Your task to perform on an android device: Open the Play Movies app and select the watchlist tab. Image 0: 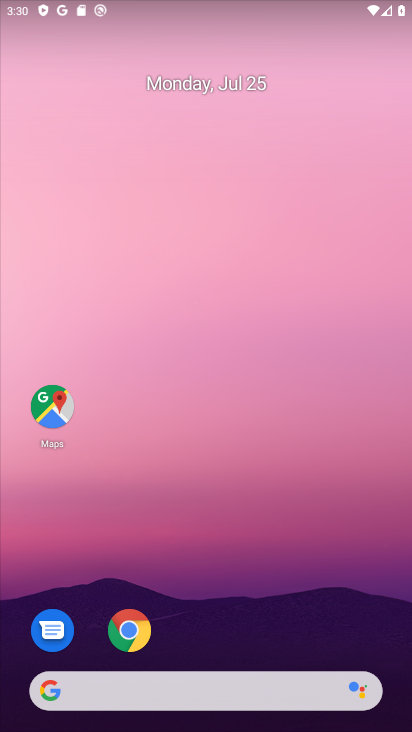
Step 0: drag from (259, 683) to (313, 1)
Your task to perform on an android device: Open the Play Movies app and select the watchlist tab. Image 1: 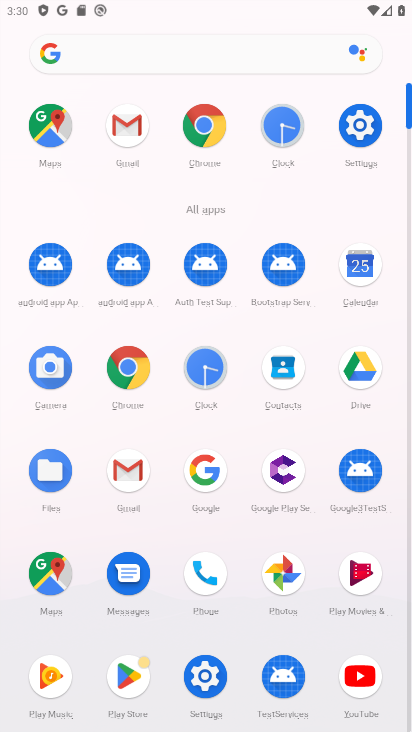
Step 1: click (361, 573)
Your task to perform on an android device: Open the Play Movies app and select the watchlist tab. Image 2: 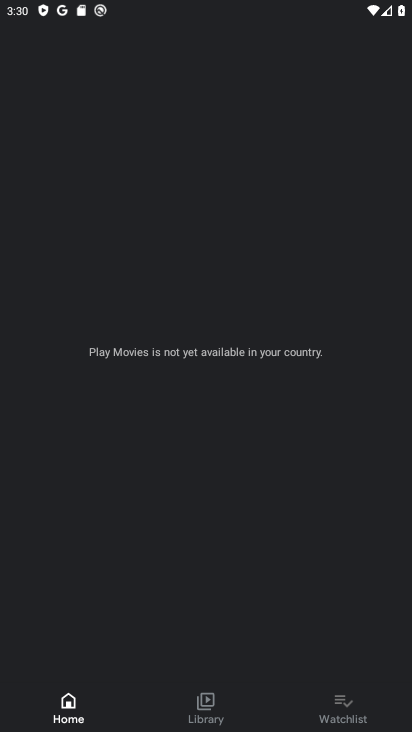
Step 2: click (345, 708)
Your task to perform on an android device: Open the Play Movies app and select the watchlist tab. Image 3: 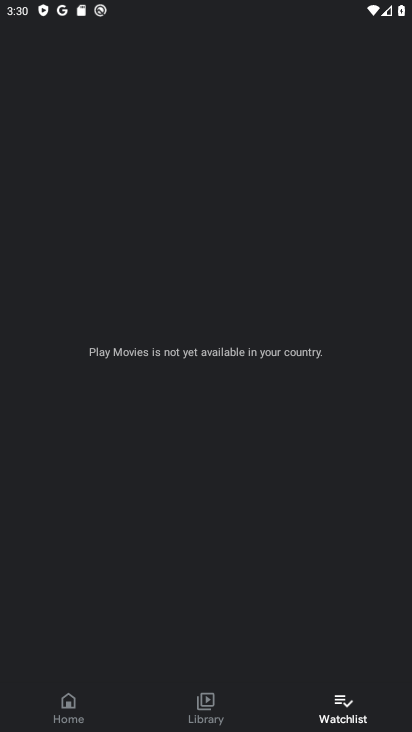
Step 3: task complete